Your task to perform on an android device: What's the weather going to be this weekend? Image 0: 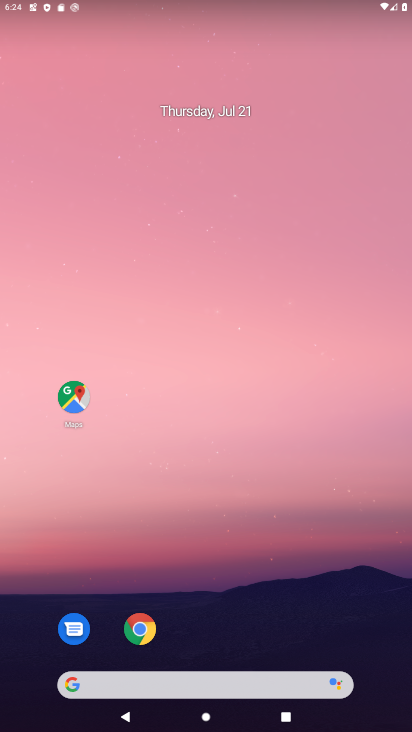
Step 0: drag from (209, 679) to (247, 244)
Your task to perform on an android device: What's the weather going to be this weekend? Image 1: 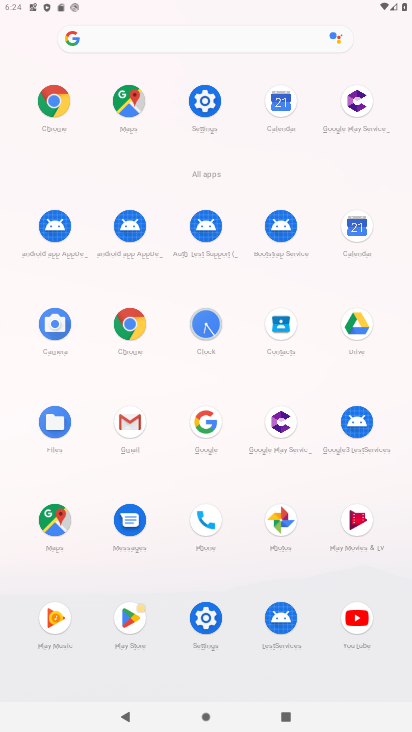
Step 1: click (203, 420)
Your task to perform on an android device: What's the weather going to be this weekend? Image 2: 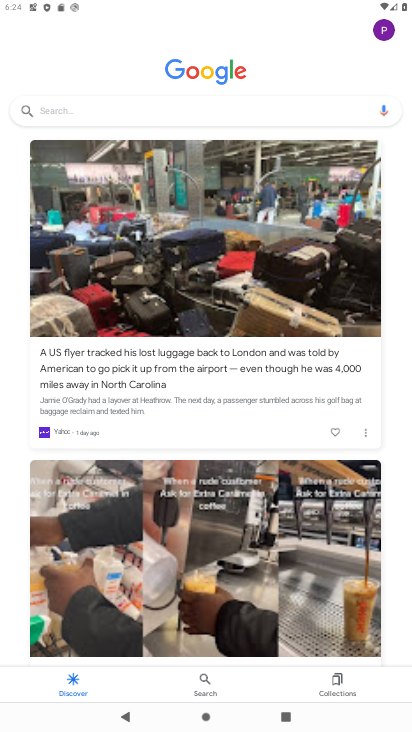
Step 2: click (149, 106)
Your task to perform on an android device: What's the weather going to be this weekend? Image 3: 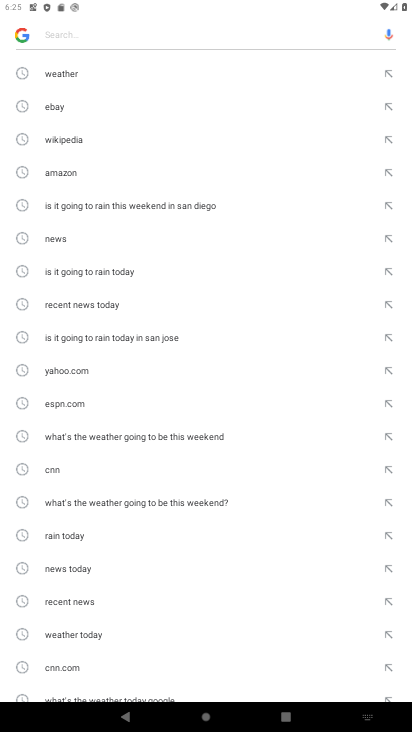
Step 3: type "What's the weather going to be this weekend?"
Your task to perform on an android device: What's the weather going to be this weekend? Image 4: 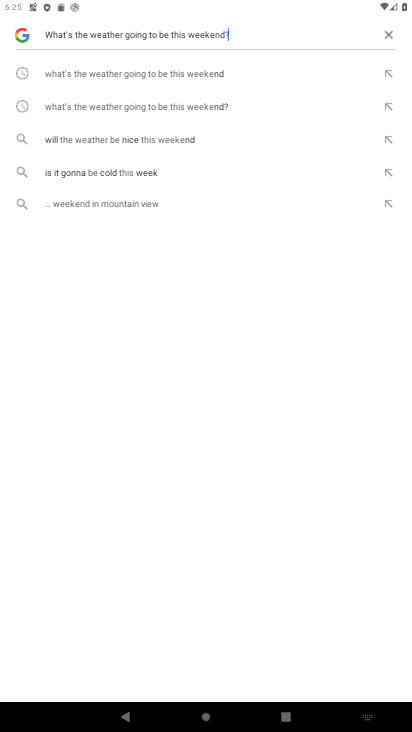
Step 4: type ""
Your task to perform on an android device: What's the weather going to be this weekend? Image 5: 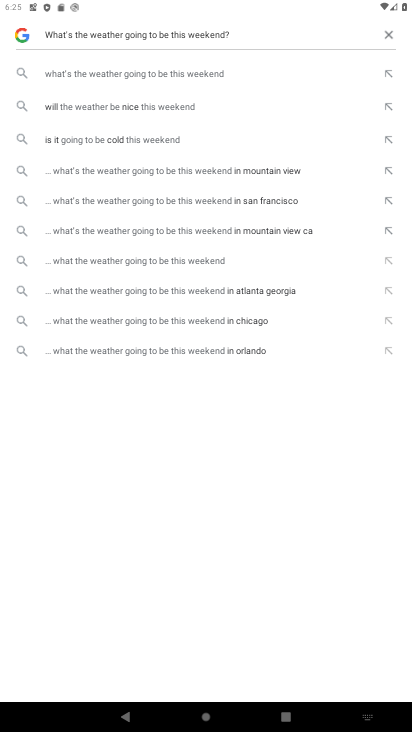
Step 5: click (78, 70)
Your task to perform on an android device: What's the weather going to be this weekend? Image 6: 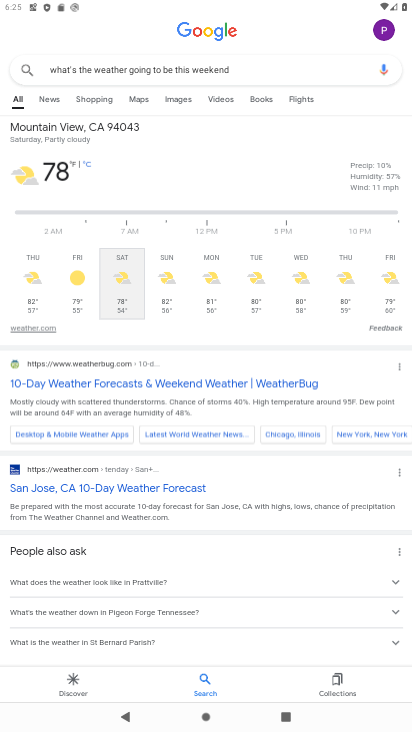
Step 6: task complete